Your task to perform on an android device: turn off picture-in-picture Image 0: 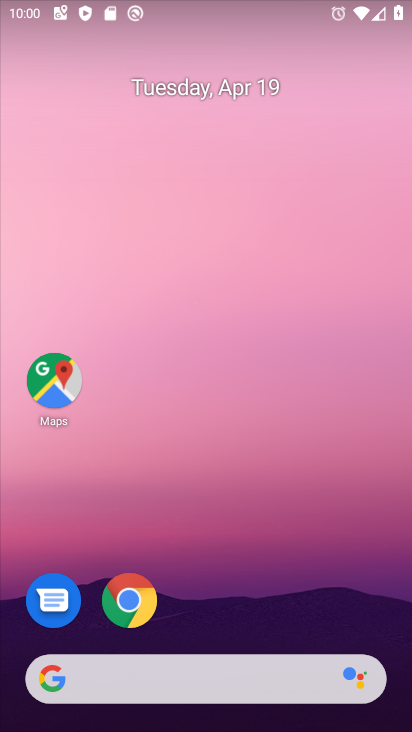
Step 0: drag from (311, 560) to (279, 88)
Your task to perform on an android device: turn off picture-in-picture Image 1: 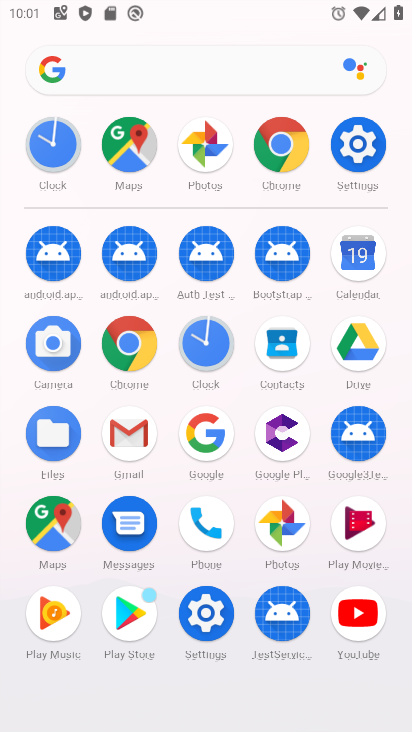
Step 1: click (280, 126)
Your task to perform on an android device: turn off picture-in-picture Image 2: 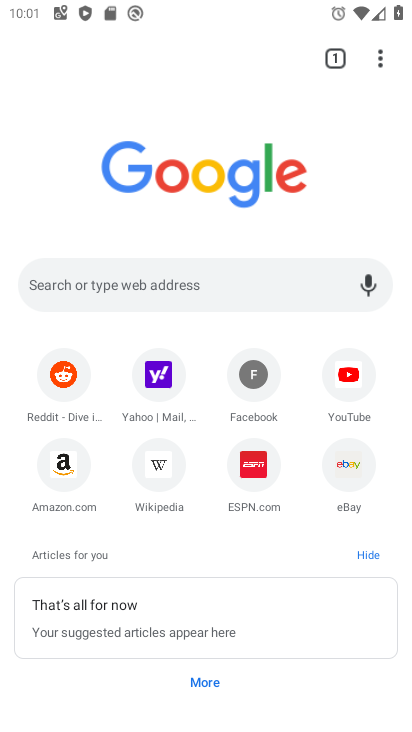
Step 2: click (378, 55)
Your task to perform on an android device: turn off picture-in-picture Image 3: 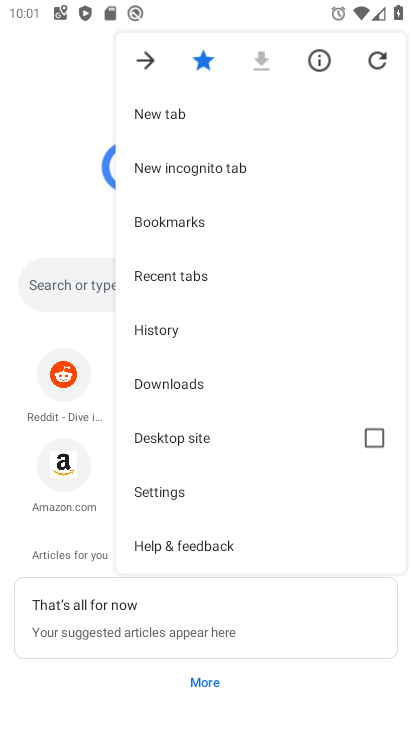
Step 3: task complete